Your task to perform on an android device: move a message to another label in the gmail app Image 0: 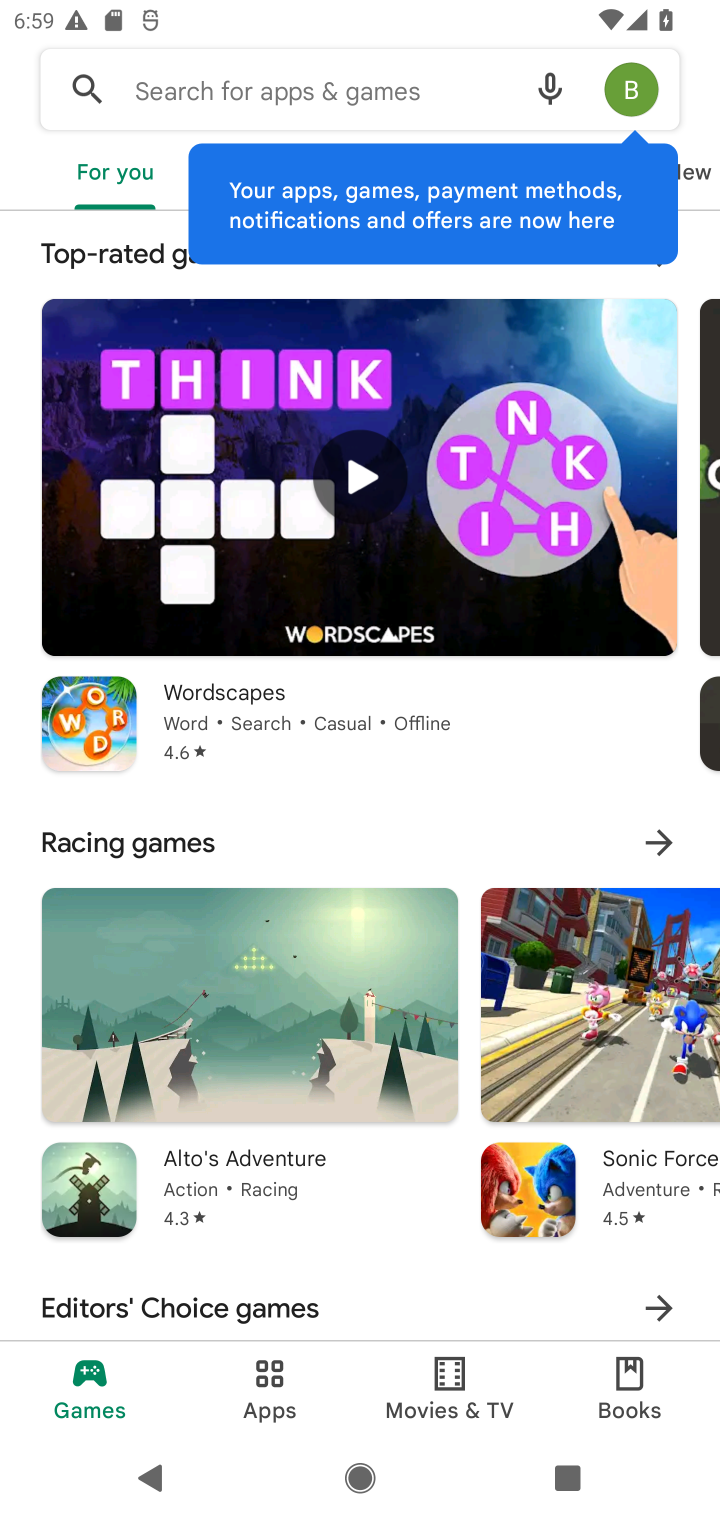
Step 0: press home button
Your task to perform on an android device: move a message to another label in the gmail app Image 1: 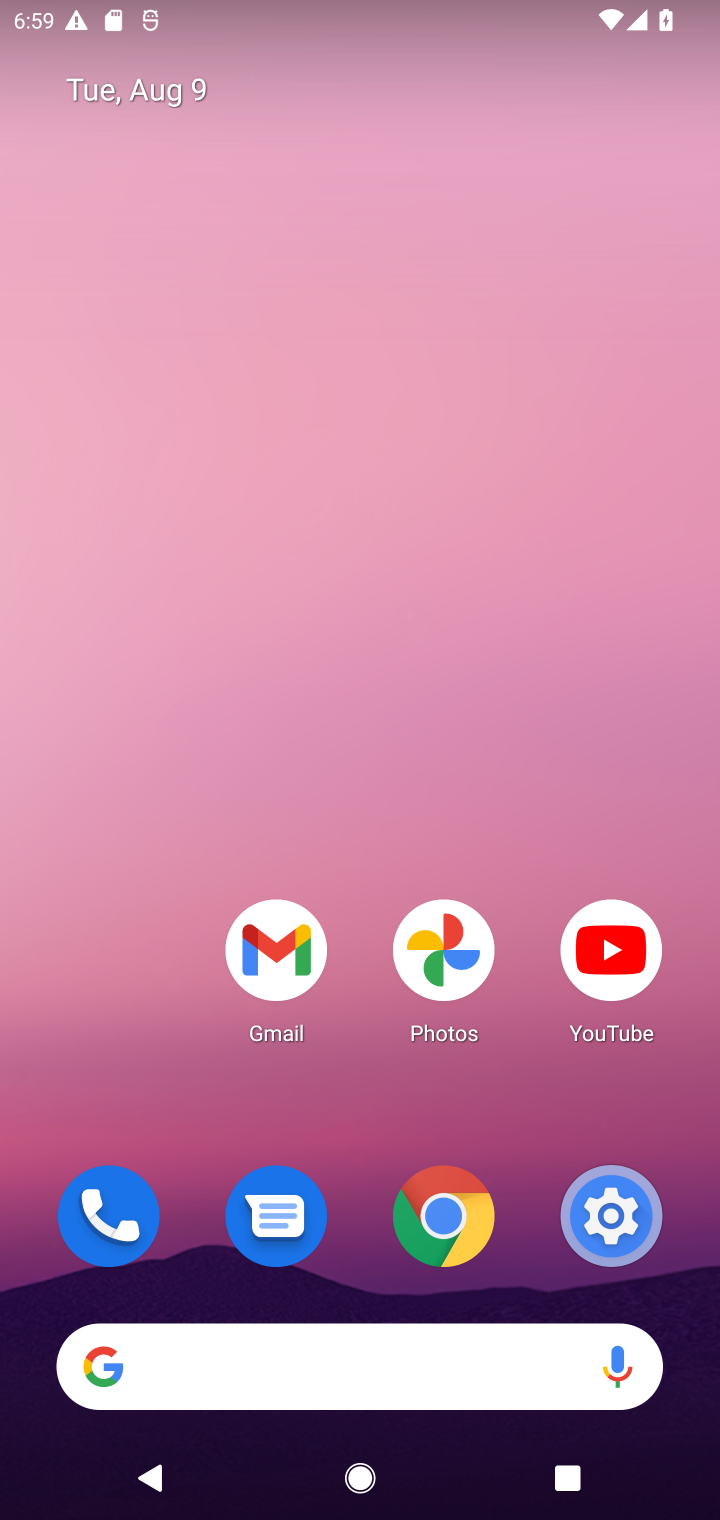
Step 1: click (256, 978)
Your task to perform on an android device: move a message to another label in the gmail app Image 2: 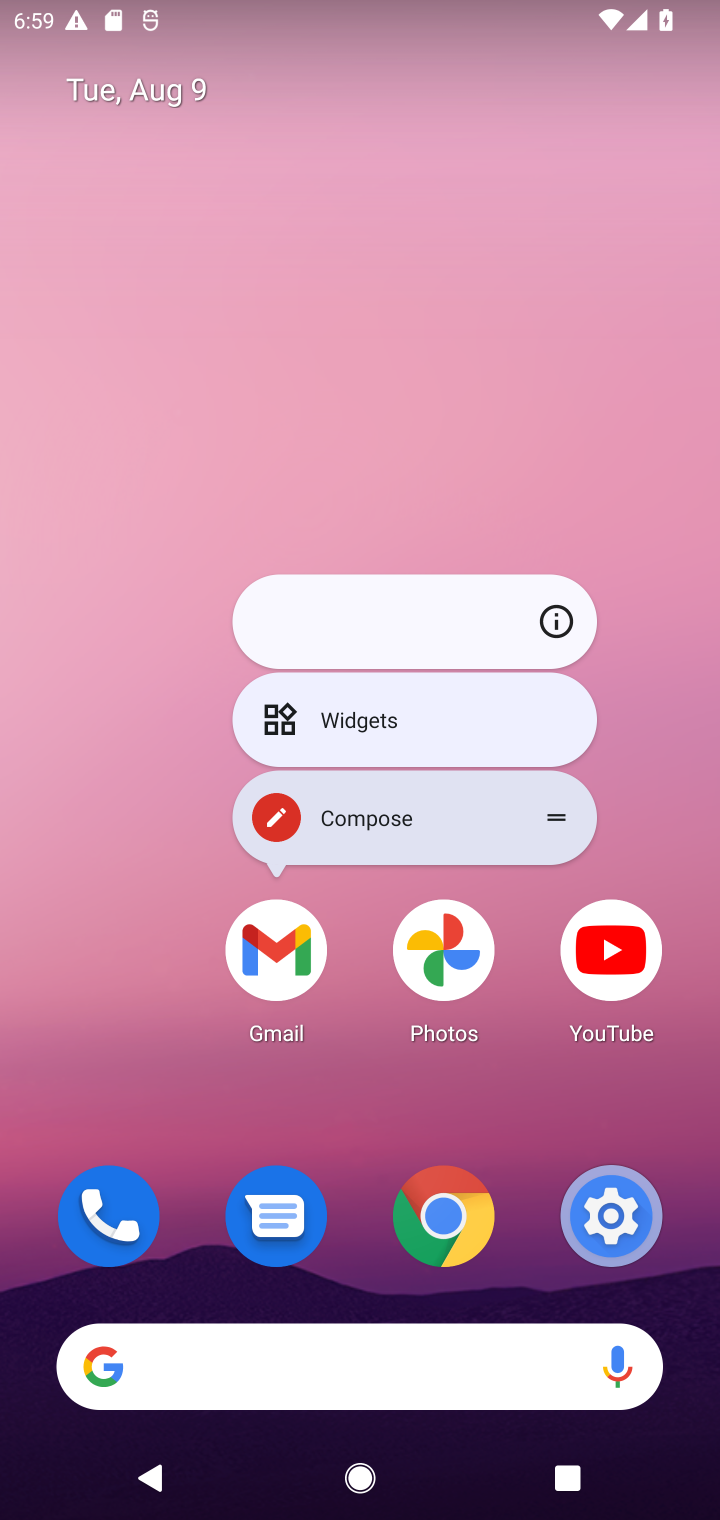
Step 2: click (256, 978)
Your task to perform on an android device: move a message to another label in the gmail app Image 3: 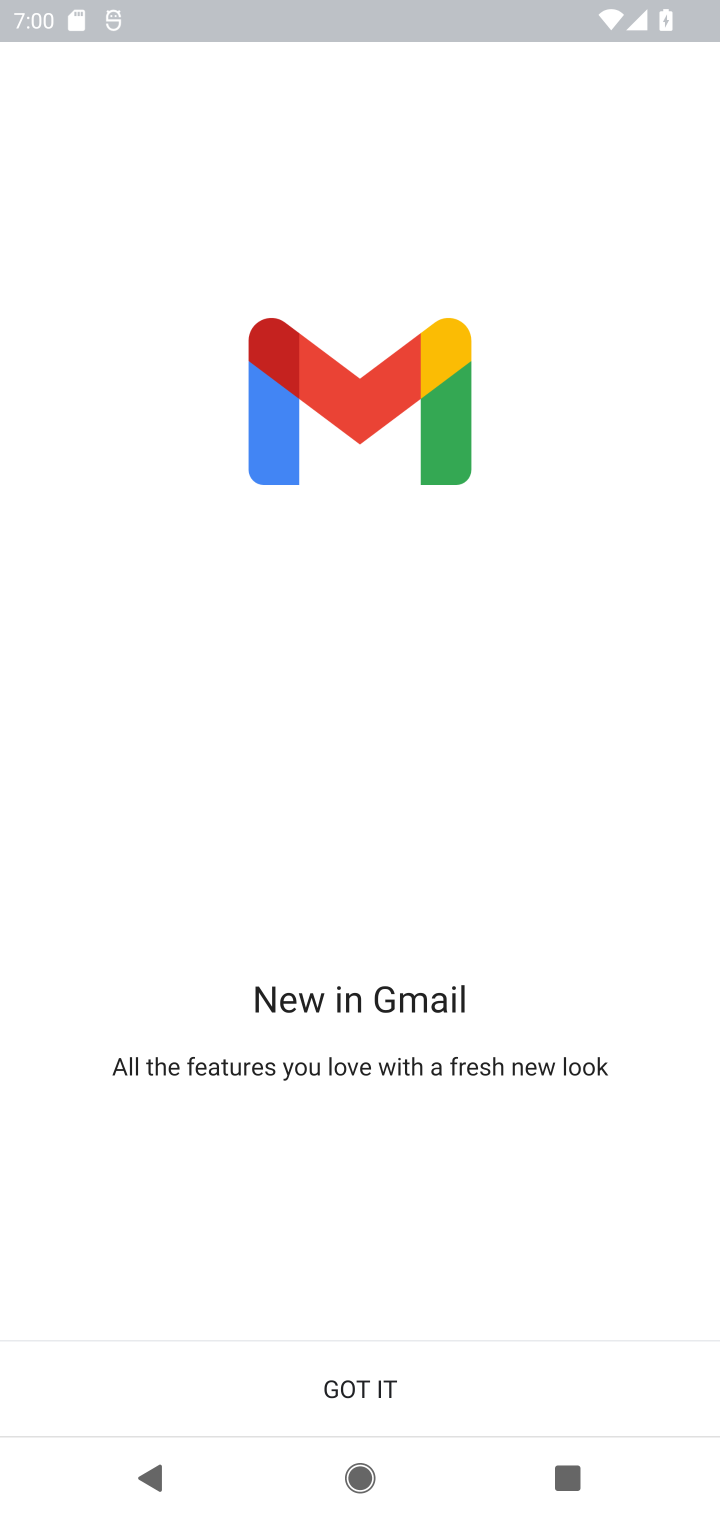
Step 3: click (359, 1382)
Your task to perform on an android device: move a message to another label in the gmail app Image 4: 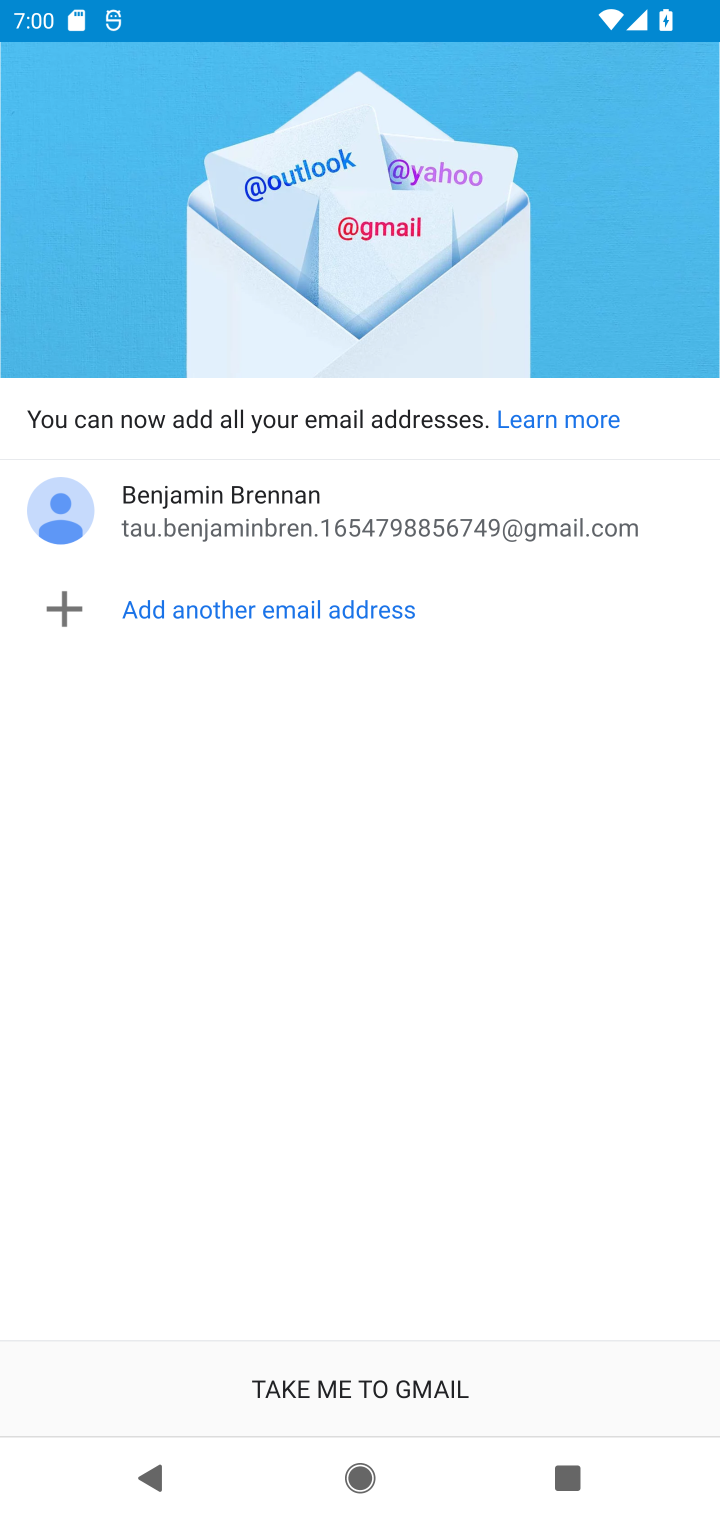
Step 4: click (390, 1375)
Your task to perform on an android device: move a message to another label in the gmail app Image 5: 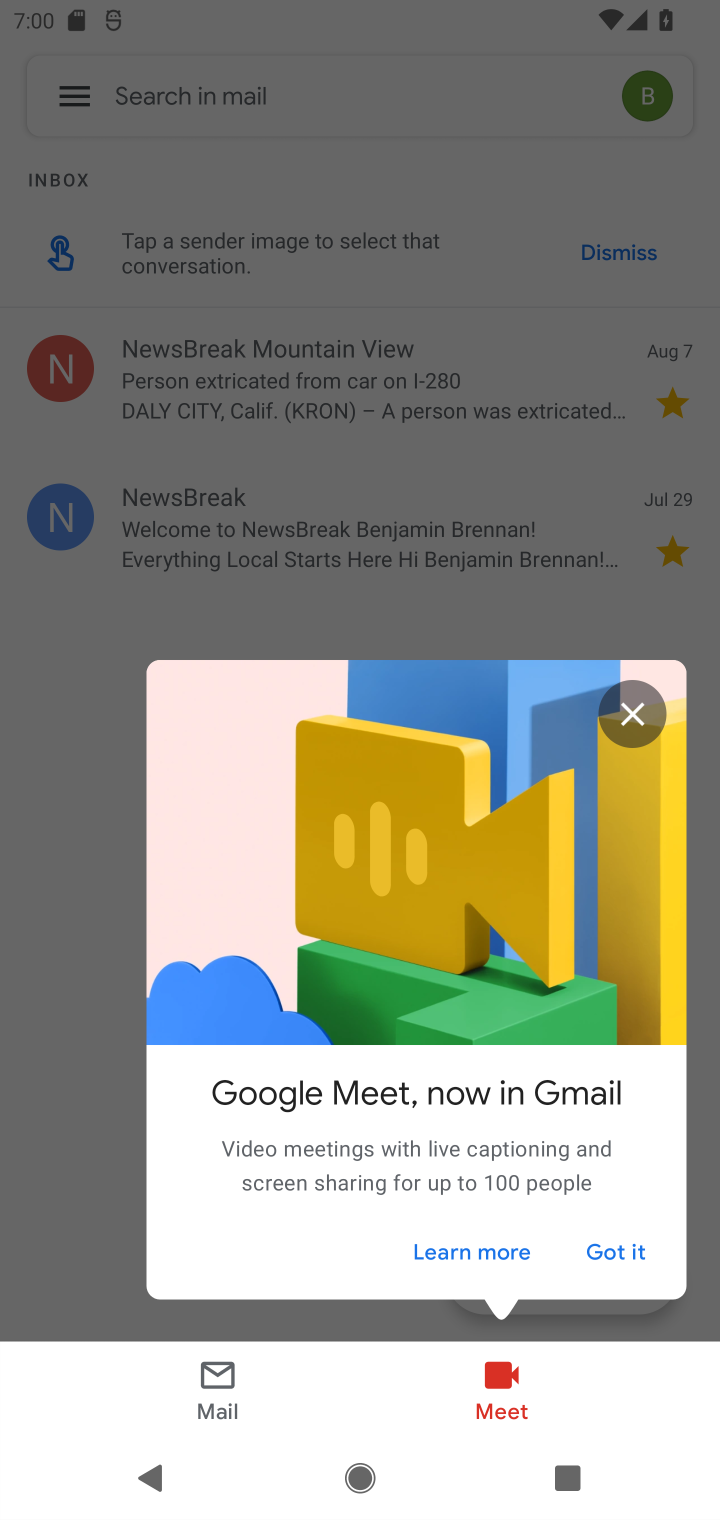
Step 5: click (634, 691)
Your task to perform on an android device: move a message to another label in the gmail app Image 6: 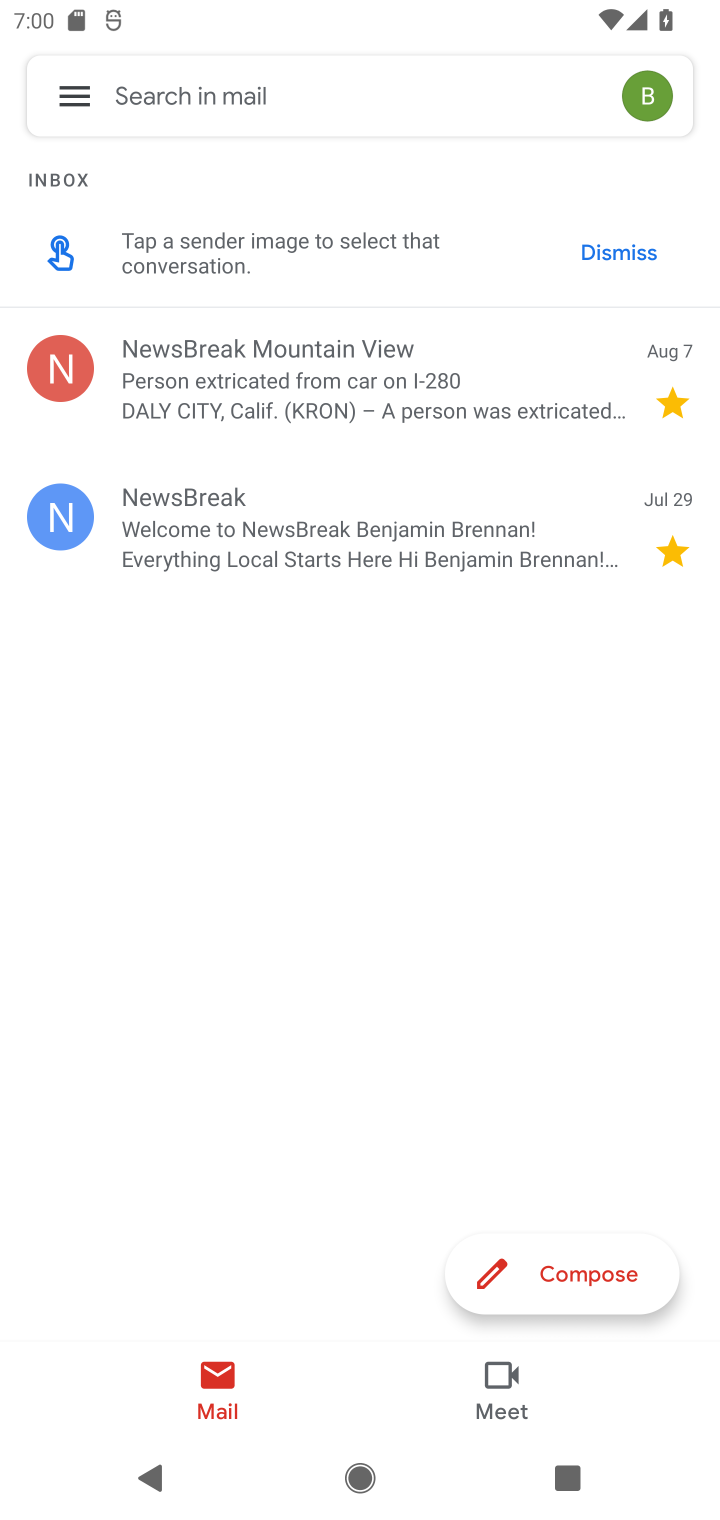
Step 6: click (294, 352)
Your task to perform on an android device: move a message to another label in the gmail app Image 7: 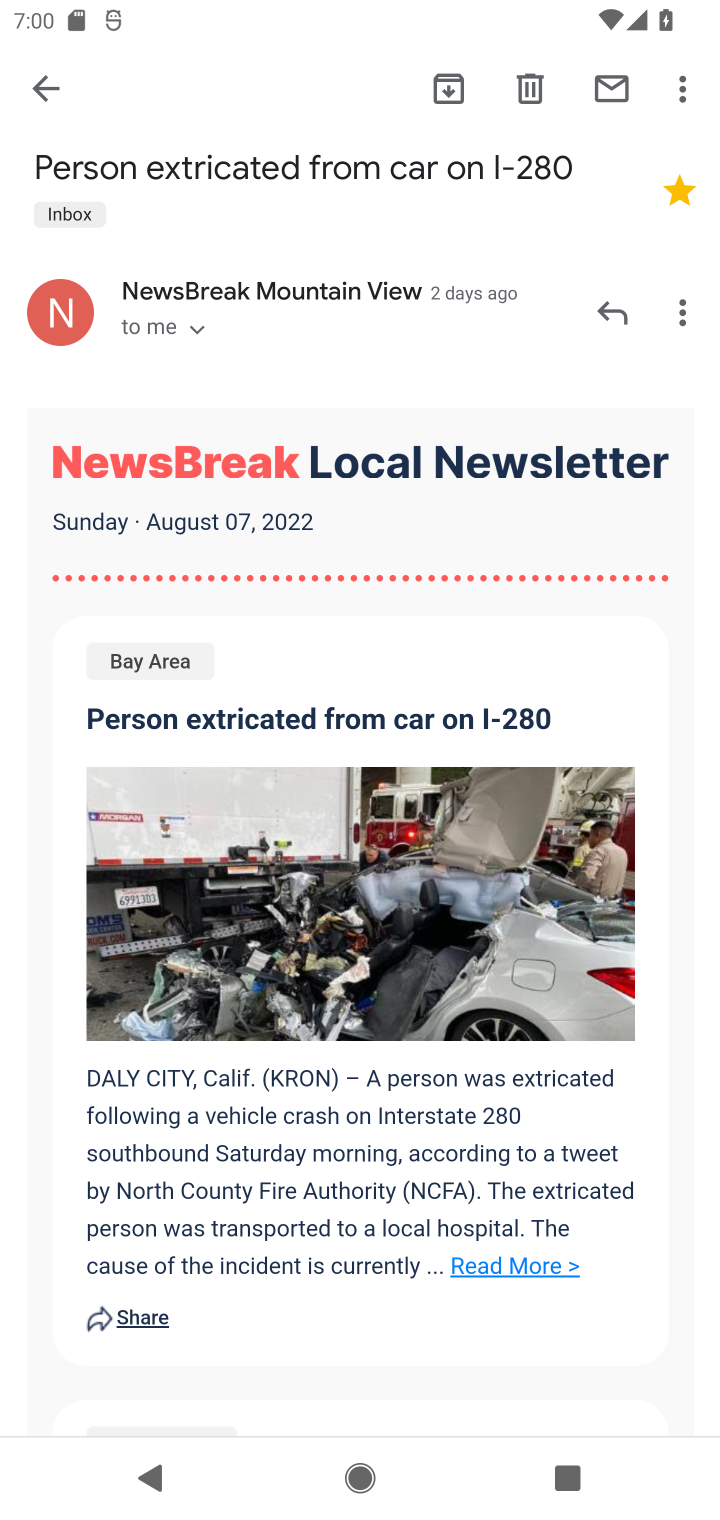
Step 7: click (689, 84)
Your task to perform on an android device: move a message to another label in the gmail app Image 8: 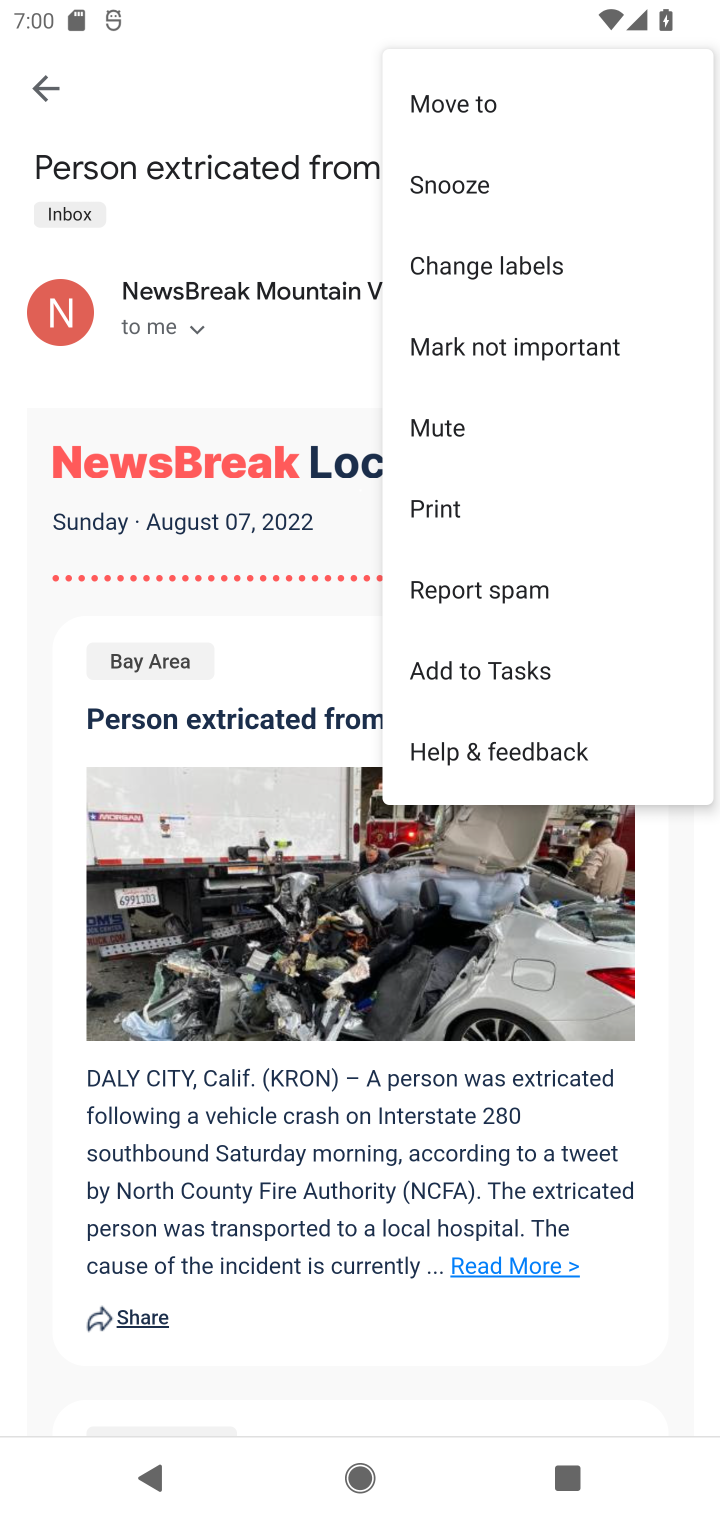
Step 8: click (488, 252)
Your task to perform on an android device: move a message to another label in the gmail app Image 9: 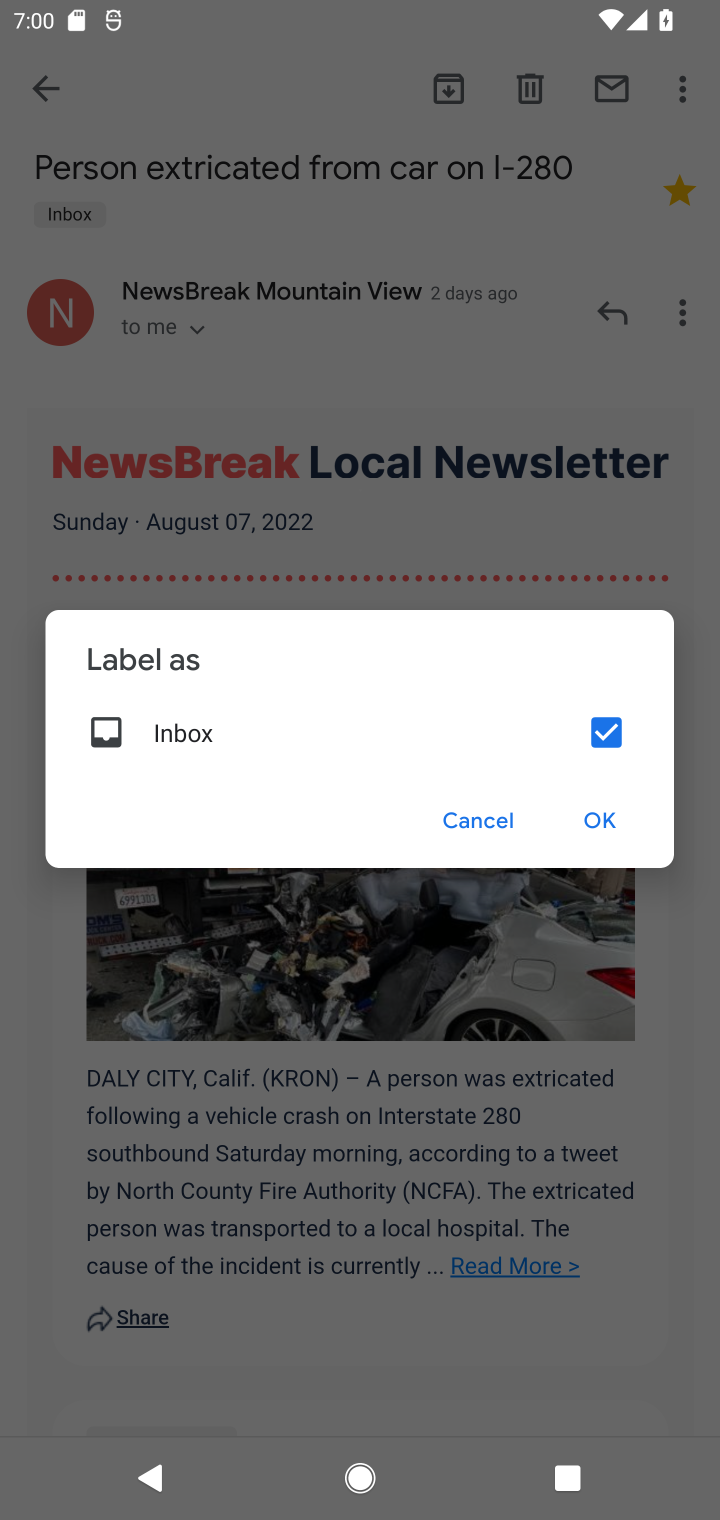
Step 9: click (596, 822)
Your task to perform on an android device: move a message to another label in the gmail app Image 10: 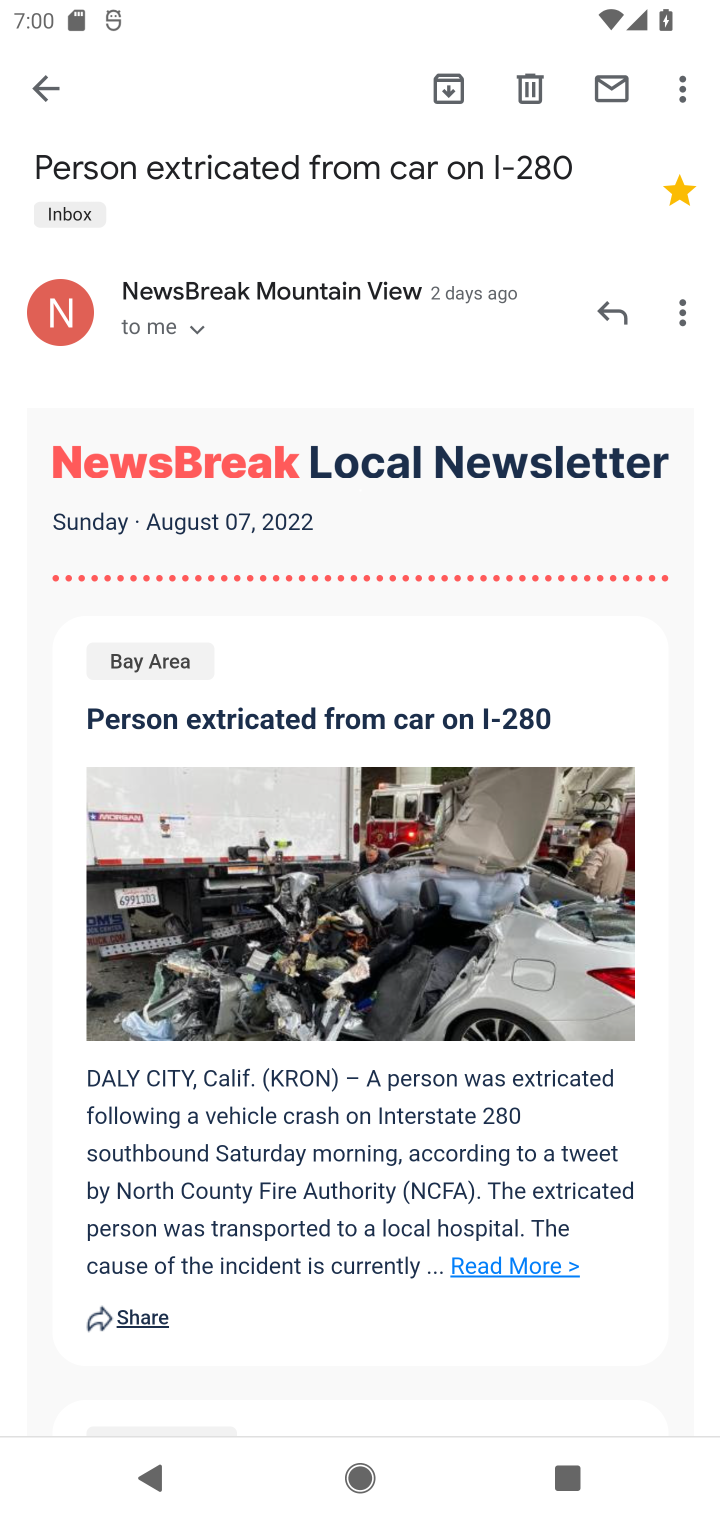
Step 10: task complete